Your task to perform on an android device: toggle wifi Image 0: 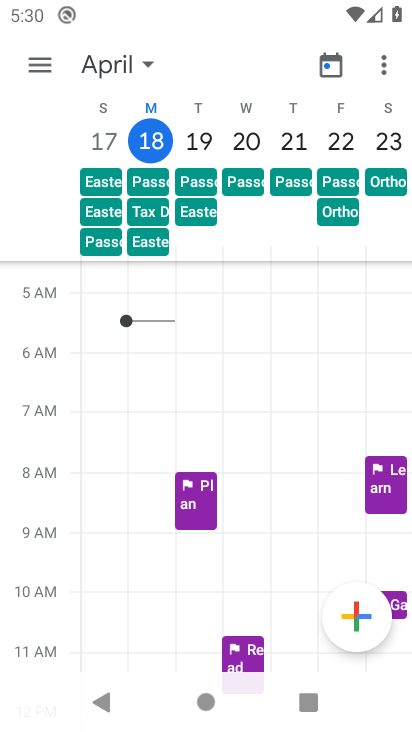
Step 0: press home button
Your task to perform on an android device: toggle wifi Image 1: 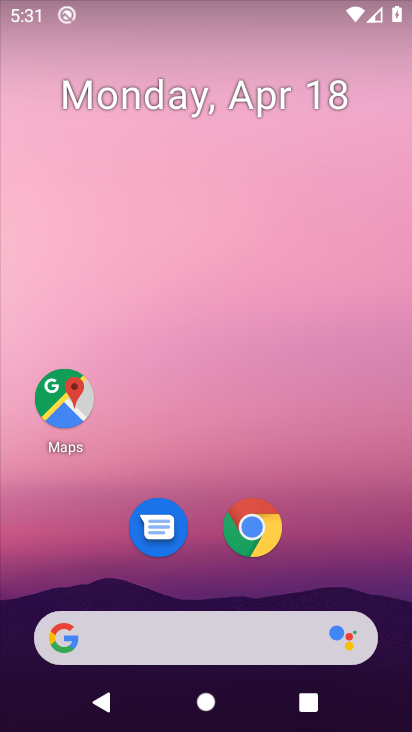
Step 1: drag from (207, 607) to (239, 169)
Your task to perform on an android device: toggle wifi Image 2: 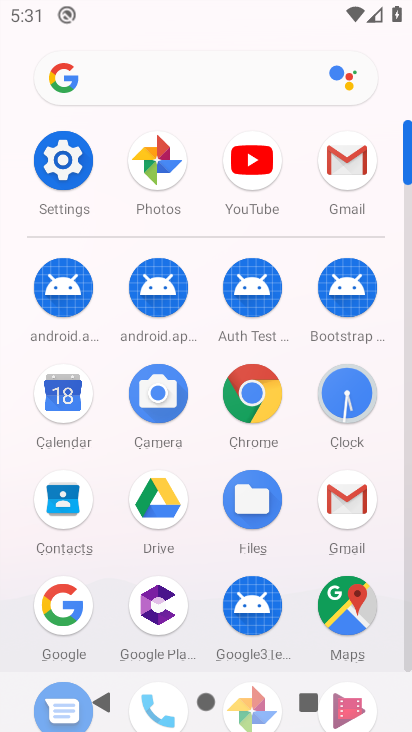
Step 2: click (61, 161)
Your task to perform on an android device: toggle wifi Image 3: 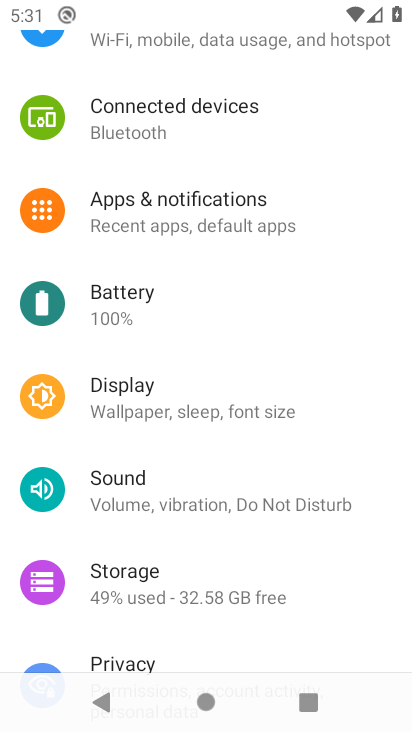
Step 3: drag from (214, 41) to (215, 316)
Your task to perform on an android device: toggle wifi Image 4: 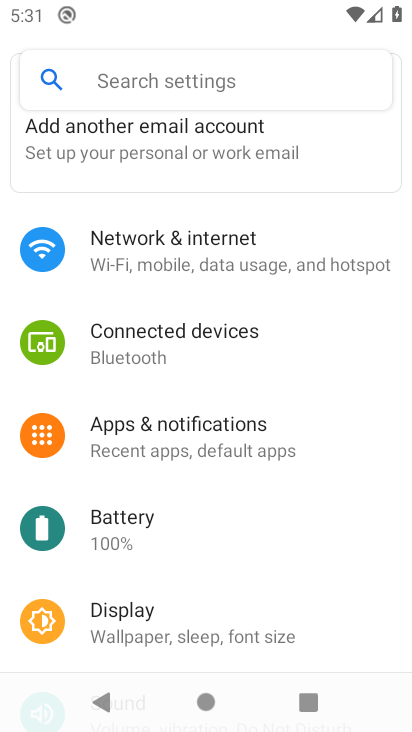
Step 4: click (209, 242)
Your task to perform on an android device: toggle wifi Image 5: 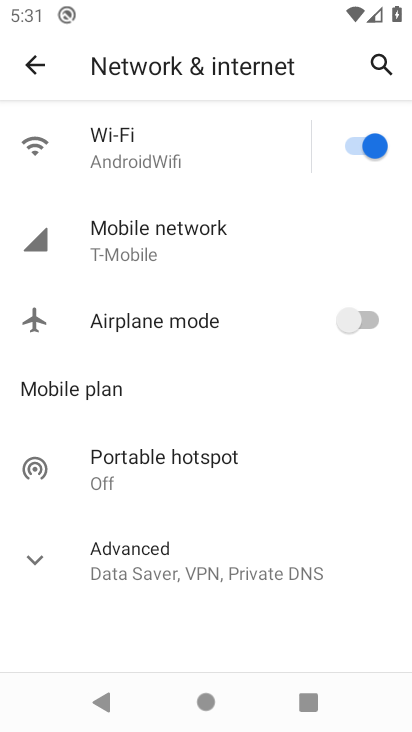
Step 5: click (353, 143)
Your task to perform on an android device: toggle wifi Image 6: 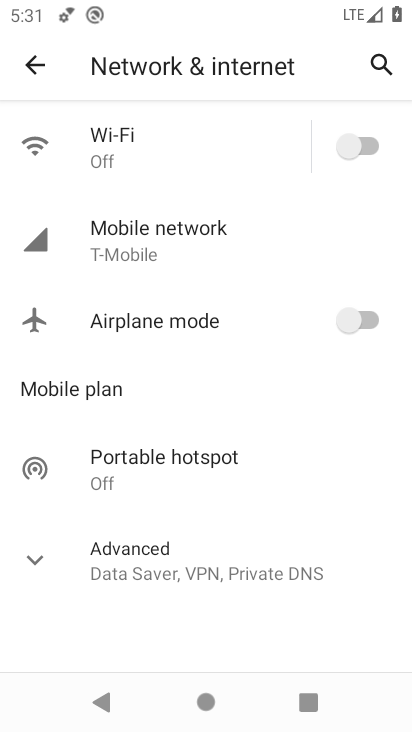
Step 6: task complete